Your task to perform on an android device: Open Yahoo.com Image 0: 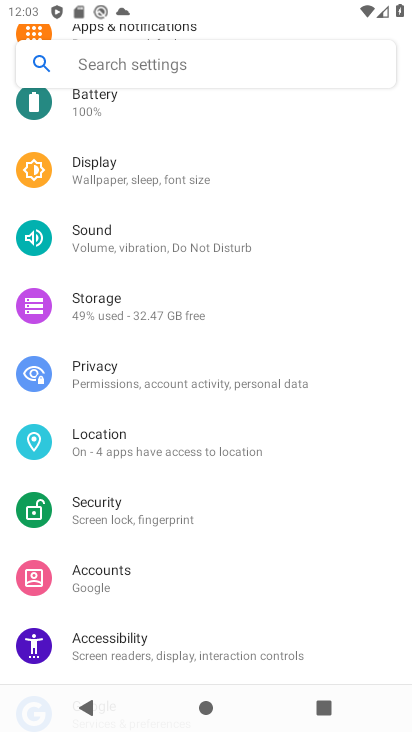
Step 0: press home button
Your task to perform on an android device: Open Yahoo.com Image 1: 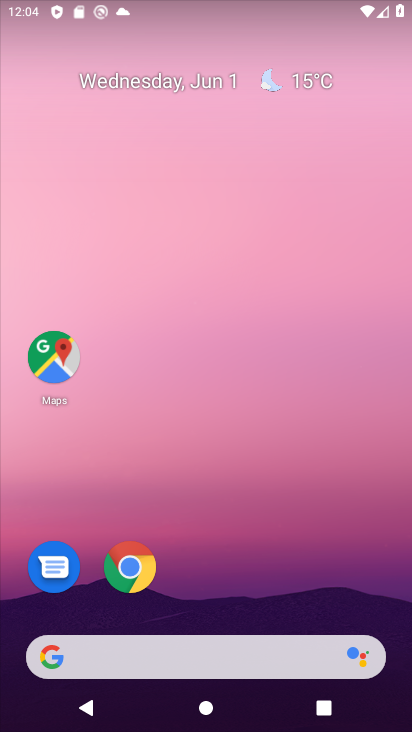
Step 1: click (135, 563)
Your task to perform on an android device: Open Yahoo.com Image 2: 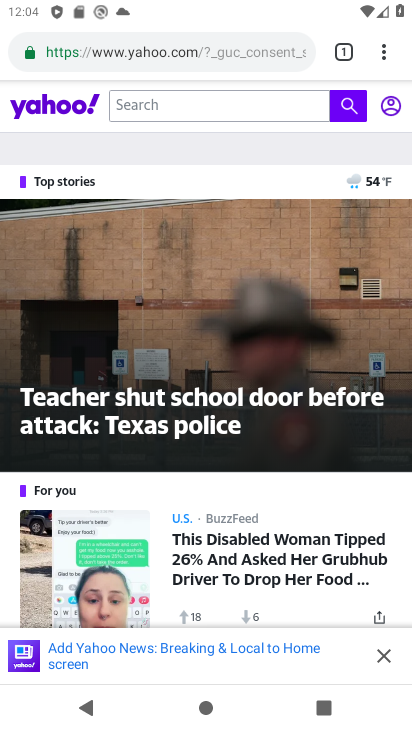
Step 2: task complete